Your task to perform on an android device: add a contact Image 0: 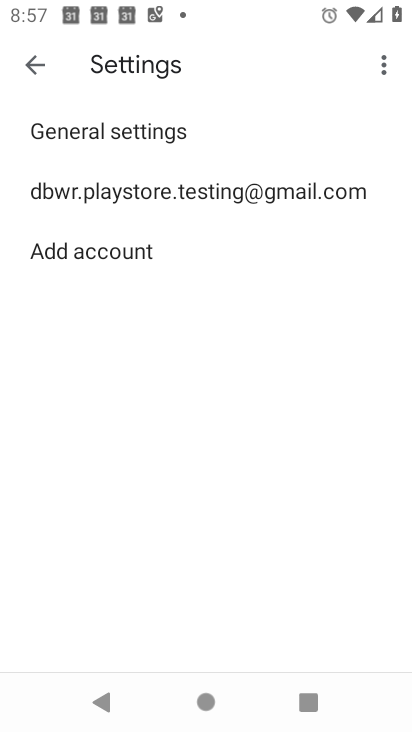
Step 0: press home button
Your task to perform on an android device: add a contact Image 1: 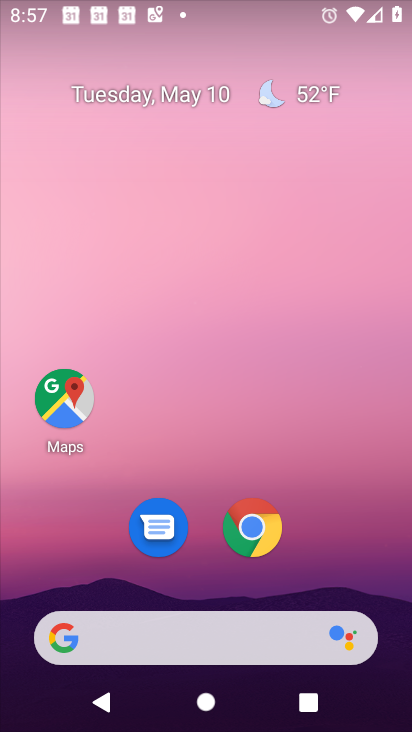
Step 1: drag from (301, 558) to (163, 87)
Your task to perform on an android device: add a contact Image 2: 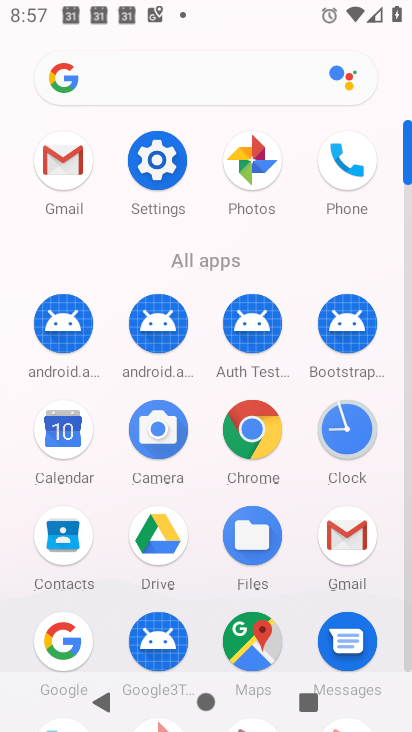
Step 2: click (62, 530)
Your task to perform on an android device: add a contact Image 3: 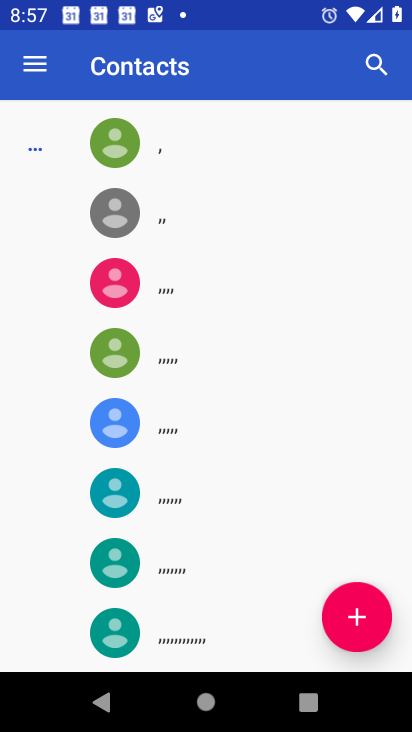
Step 3: click (354, 619)
Your task to perform on an android device: add a contact Image 4: 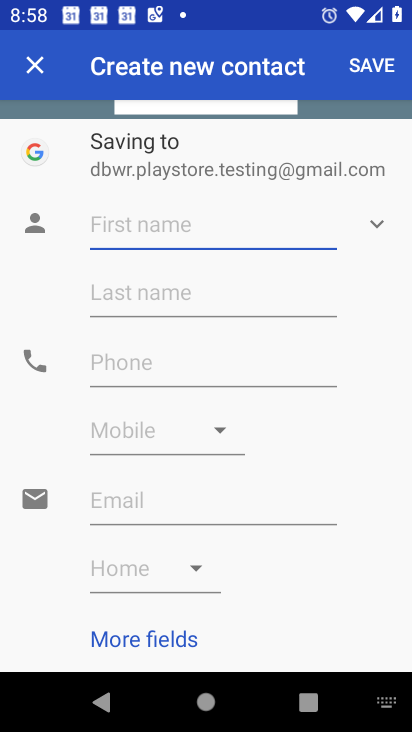
Step 4: click (126, 227)
Your task to perform on an android device: add a contact Image 5: 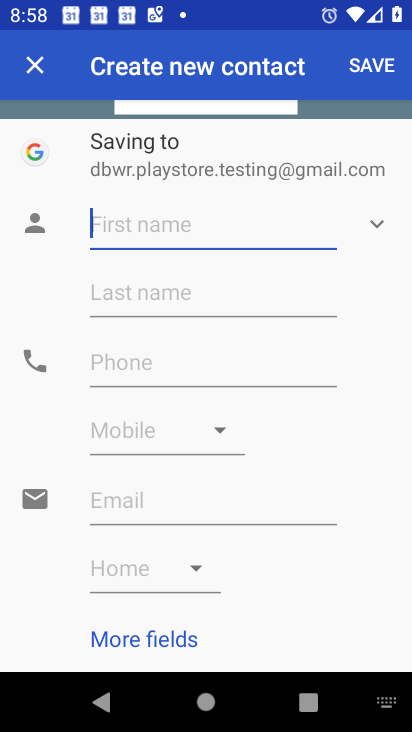
Step 5: type "cat"
Your task to perform on an android device: add a contact Image 6: 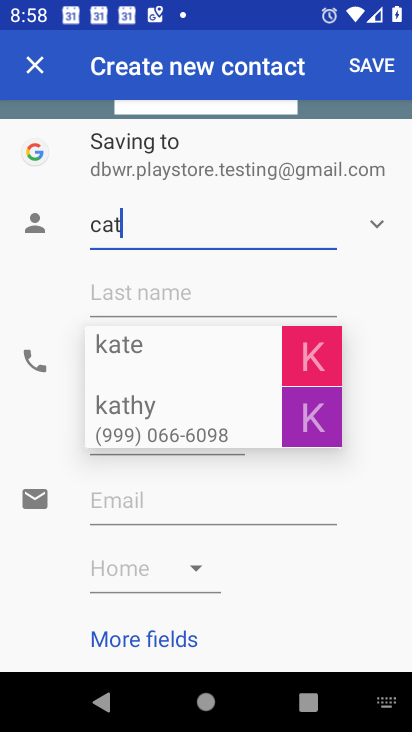
Step 6: click (198, 300)
Your task to perform on an android device: add a contact Image 7: 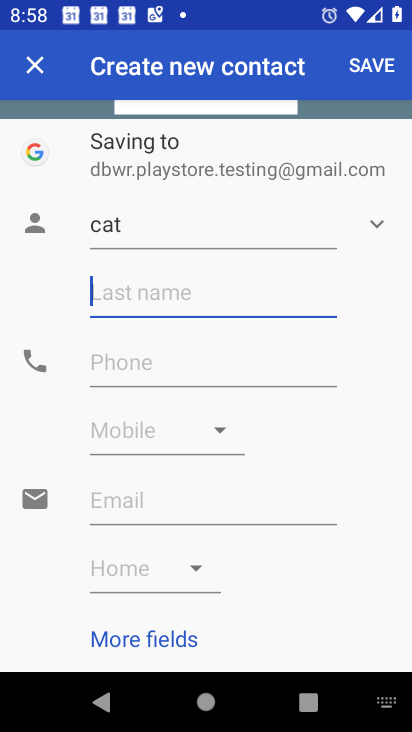
Step 7: click (147, 364)
Your task to perform on an android device: add a contact Image 8: 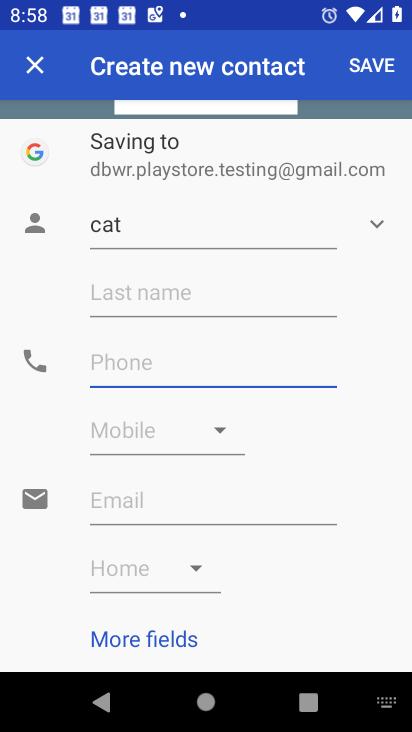
Step 8: type "4553556253"
Your task to perform on an android device: add a contact Image 9: 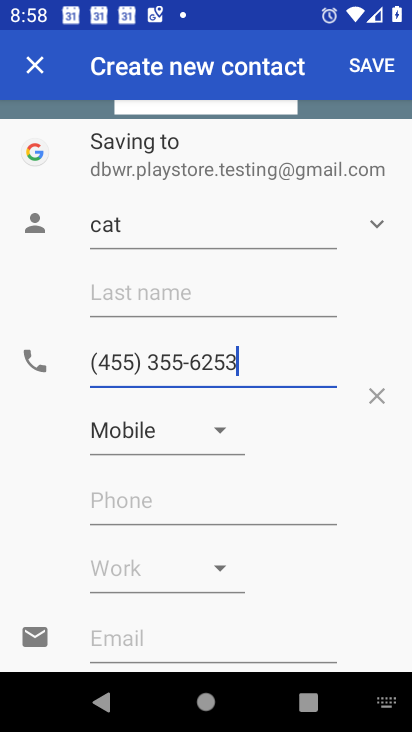
Step 9: click (379, 61)
Your task to perform on an android device: add a contact Image 10: 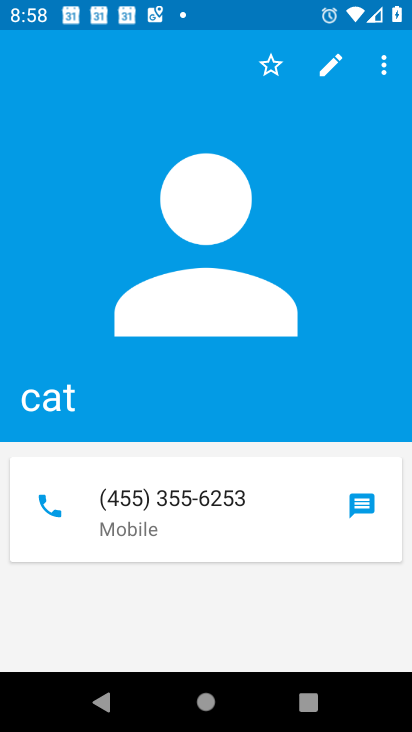
Step 10: task complete